Your task to perform on an android device: snooze an email in the gmail app Image 0: 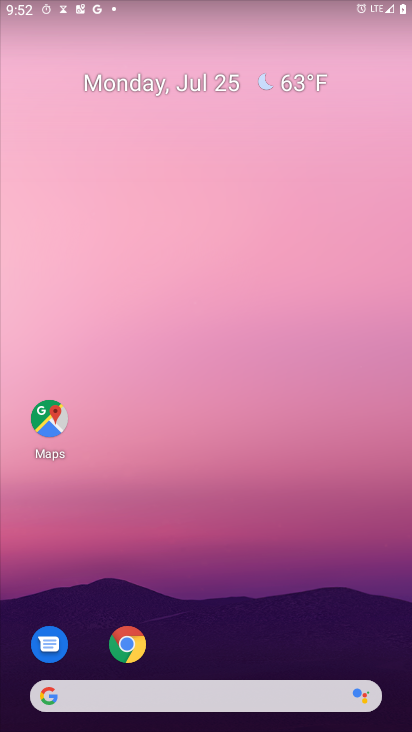
Step 0: drag from (232, 687) to (145, 295)
Your task to perform on an android device: snooze an email in the gmail app Image 1: 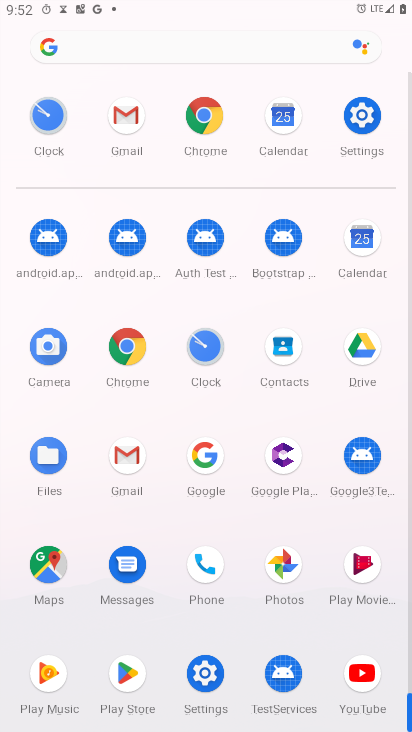
Step 1: click (133, 446)
Your task to perform on an android device: snooze an email in the gmail app Image 2: 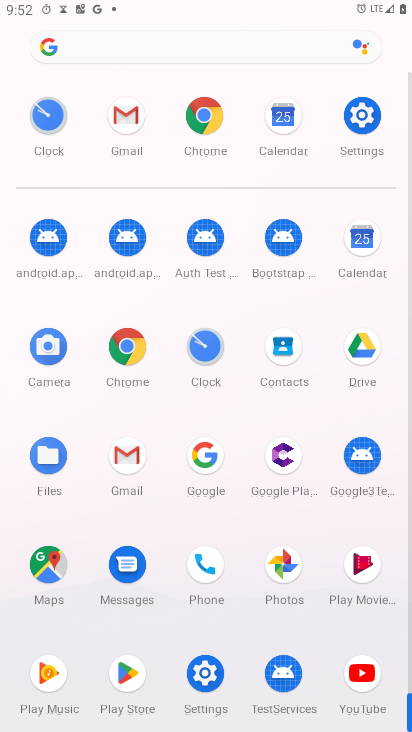
Step 2: click (130, 443)
Your task to perform on an android device: snooze an email in the gmail app Image 3: 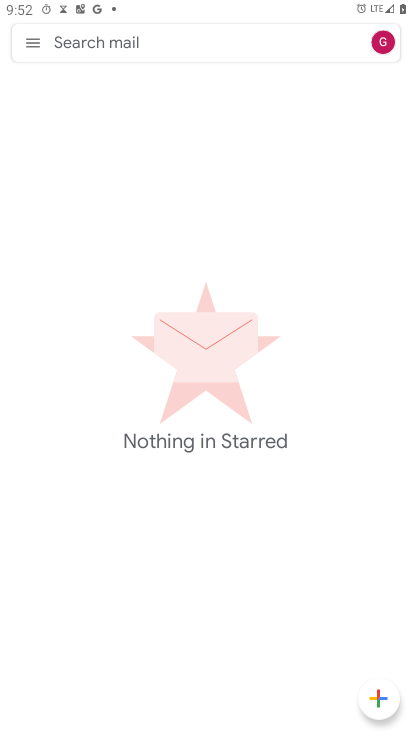
Step 3: click (27, 38)
Your task to perform on an android device: snooze an email in the gmail app Image 4: 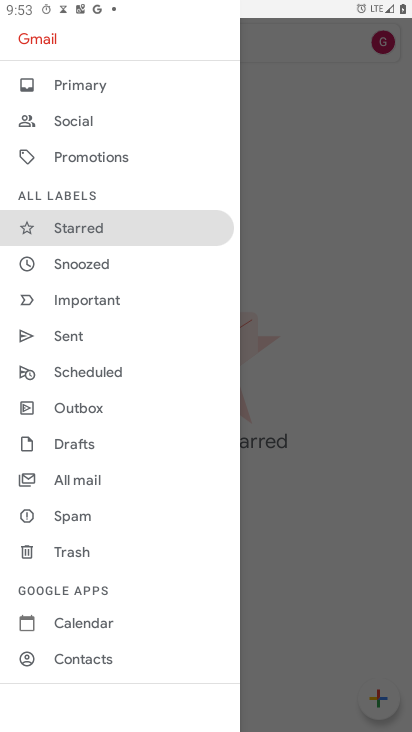
Step 4: click (74, 262)
Your task to perform on an android device: snooze an email in the gmail app Image 5: 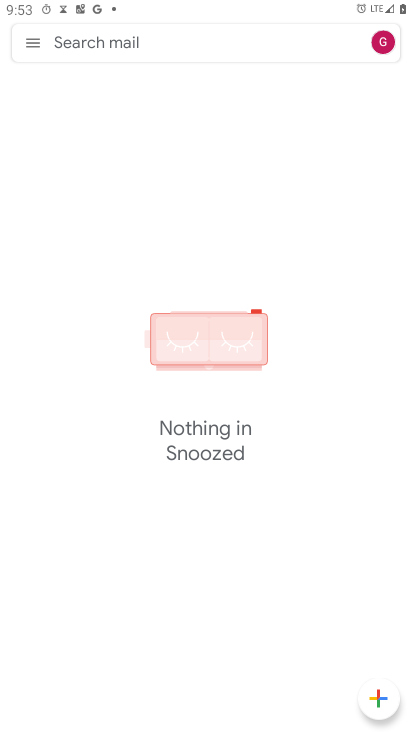
Step 5: task complete